Your task to perform on an android device: toggle sleep mode Image 0: 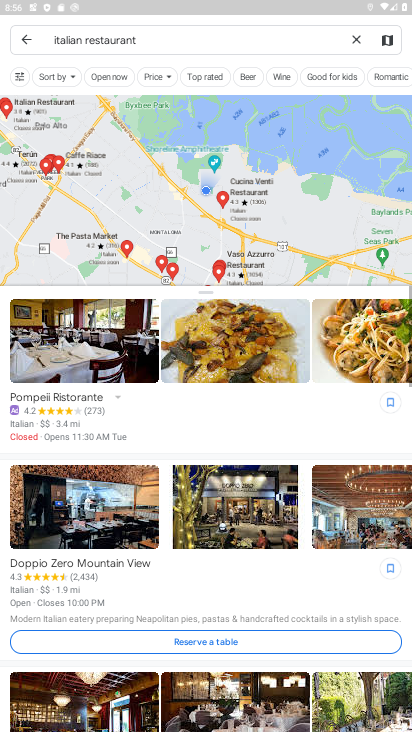
Step 0: press home button
Your task to perform on an android device: toggle sleep mode Image 1: 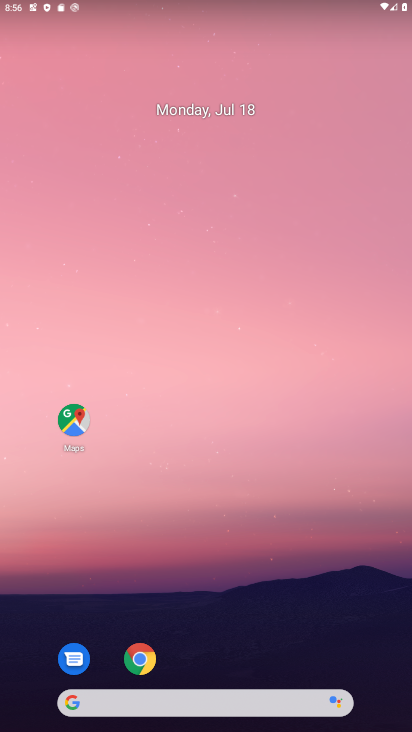
Step 1: drag from (317, 646) to (238, 54)
Your task to perform on an android device: toggle sleep mode Image 2: 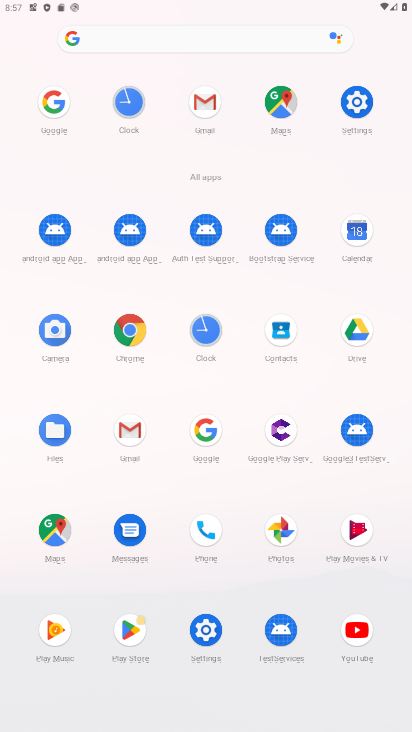
Step 2: click (345, 109)
Your task to perform on an android device: toggle sleep mode Image 3: 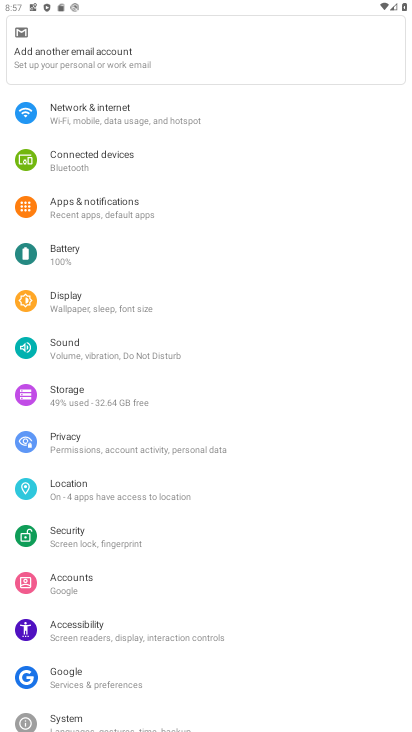
Step 3: click (64, 293)
Your task to perform on an android device: toggle sleep mode Image 4: 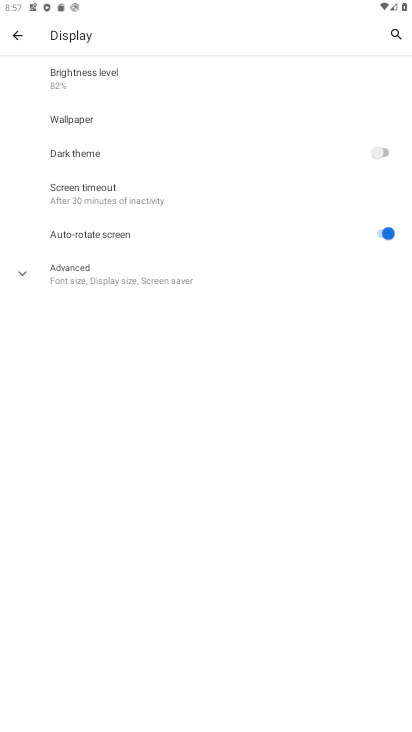
Step 4: click (110, 205)
Your task to perform on an android device: toggle sleep mode Image 5: 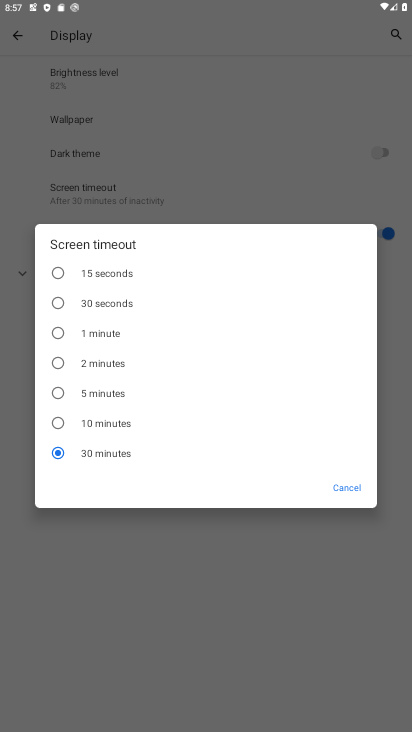
Step 5: click (83, 361)
Your task to perform on an android device: toggle sleep mode Image 6: 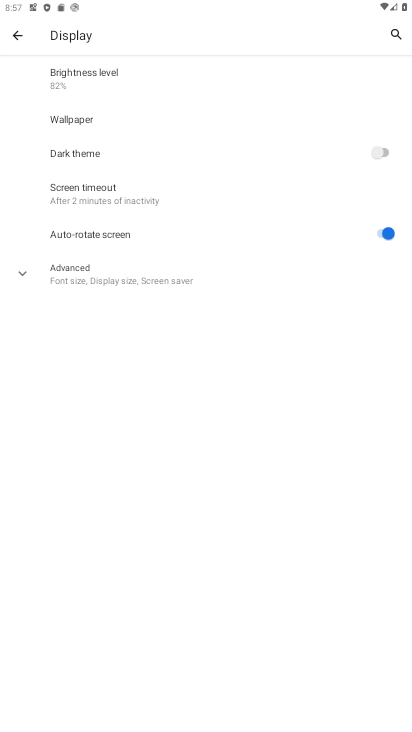
Step 6: task complete